Your task to perform on an android device: set the timer Image 0: 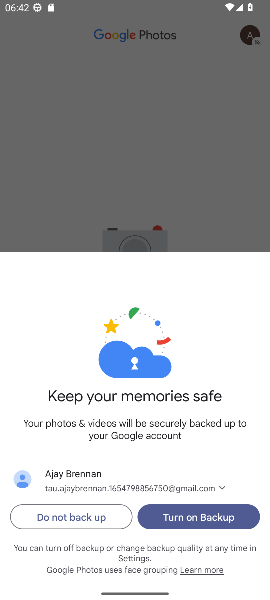
Step 0: press home button
Your task to perform on an android device: set the timer Image 1: 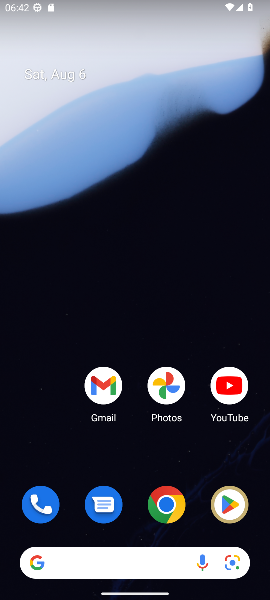
Step 1: drag from (121, 563) to (125, 256)
Your task to perform on an android device: set the timer Image 2: 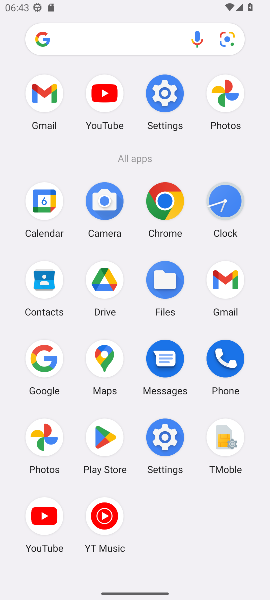
Step 2: click (225, 202)
Your task to perform on an android device: set the timer Image 3: 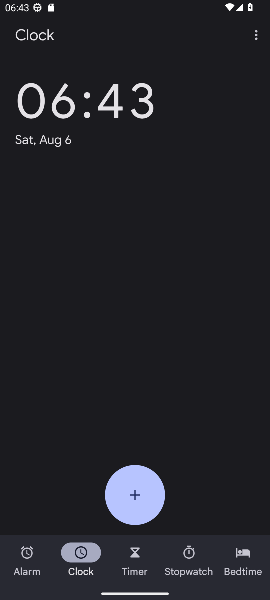
Step 3: click (137, 556)
Your task to perform on an android device: set the timer Image 4: 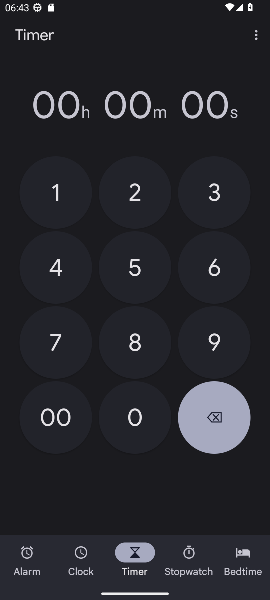
Step 4: type "148"
Your task to perform on an android device: set the timer Image 5: 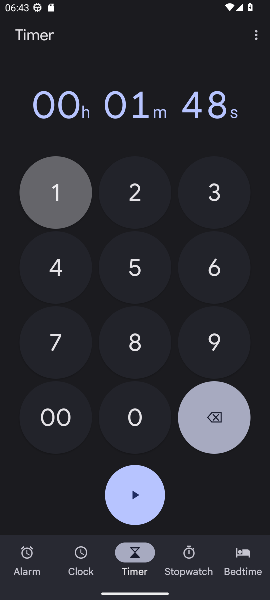
Step 5: click (140, 490)
Your task to perform on an android device: set the timer Image 6: 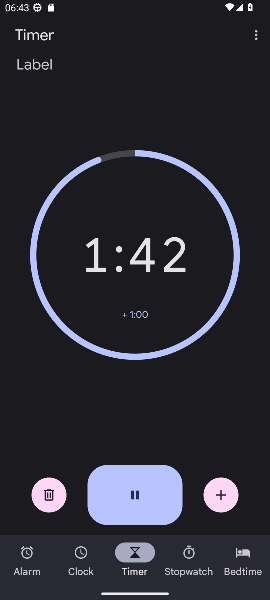
Step 6: click (140, 490)
Your task to perform on an android device: set the timer Image 7: 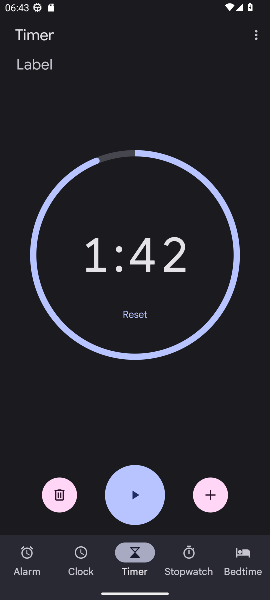
Step 7: task complete